Your task to perform on an android device: turn off notifications settings in the gmail app Image 0: 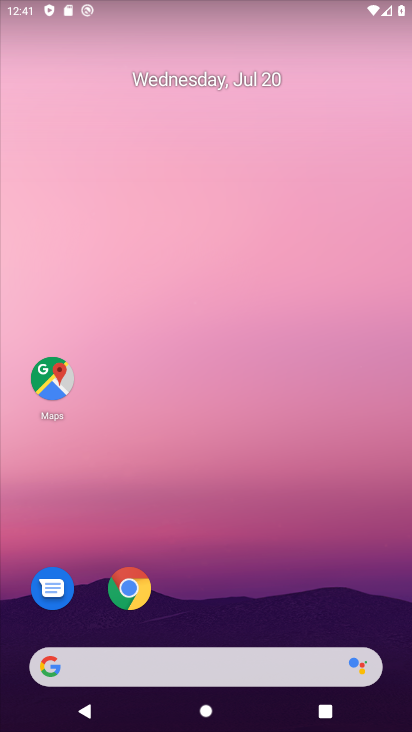
Step 0: drag from (14, 573) to (279, 81)
Your task to perform on an android device: turn off notifications settings in the gmail app Image 1: 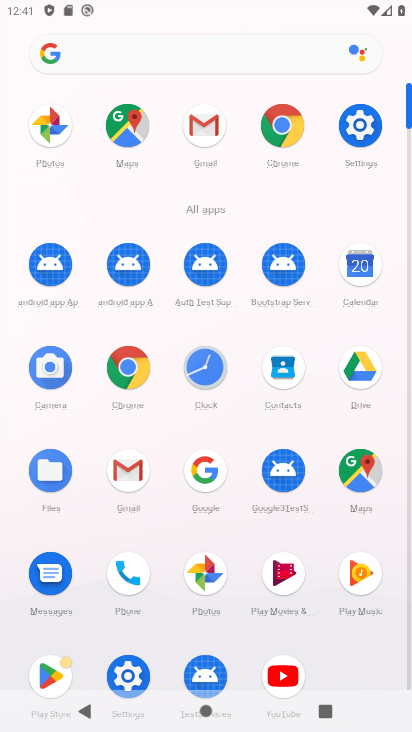
Step 1: click (363, 119)
Your task to perform on an android device: turn off notifications settings in the gmail app Image 2: 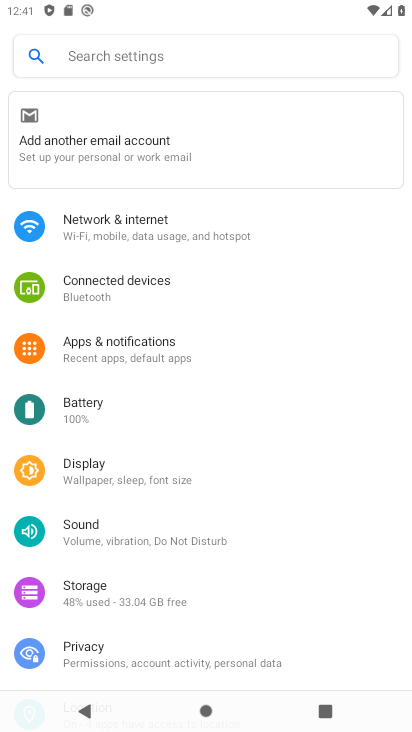
Step 2: click (106, 355)
Your task to perform on an android device: turn off notifications settings in the gmail app Image 3: 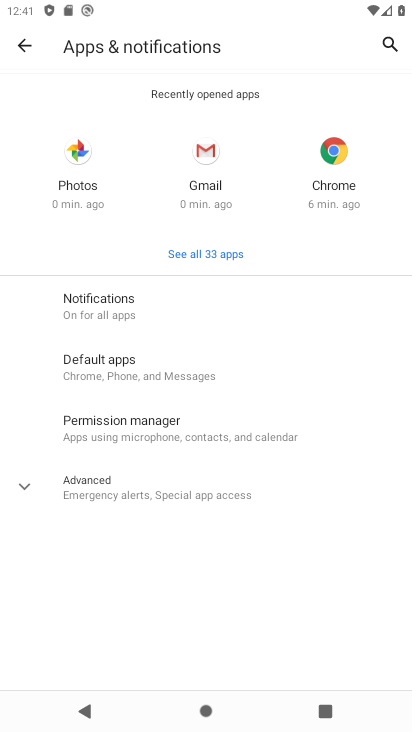
Step 3: click (108, 307)
Your task to perform on an android device: turn off notifications settings in the gmail app Image 4: 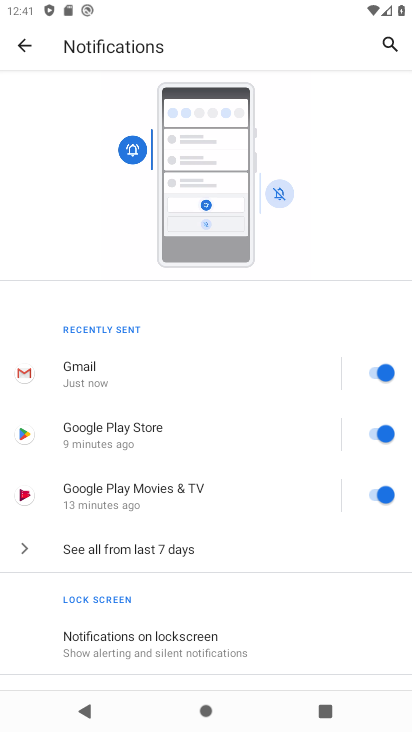
Step 4: click (394, 373)
Your task to perform on an android device: turn off notifications settings in the gmail app Image 5: 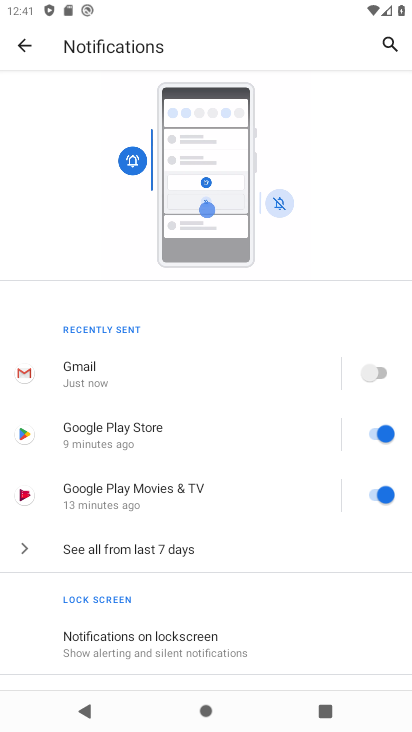
Step 5: task complete